Your task to perform on an android device: uninstall "WhatsApp Messenger" Image 0: 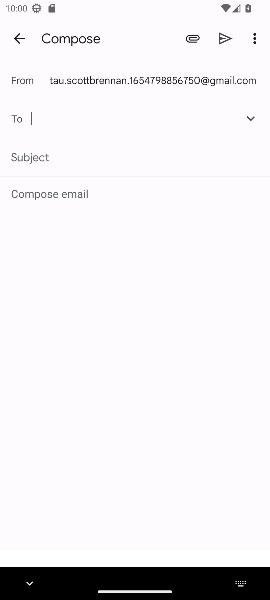
Step 0: press home button
Your task to perform on an android device: uninstall "WhatsApp Messenger" Image 1: 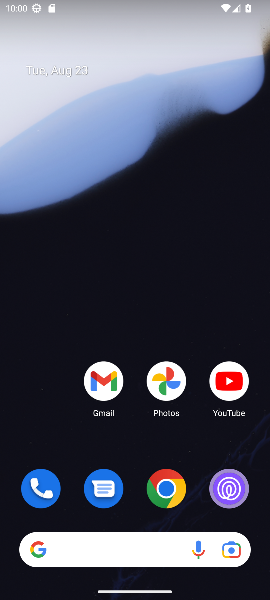
Step 1: drag from (128, 426) to (147, 103)
Your task to perform on an android device: uninstall "WhatsApp Messenger" Image 2: 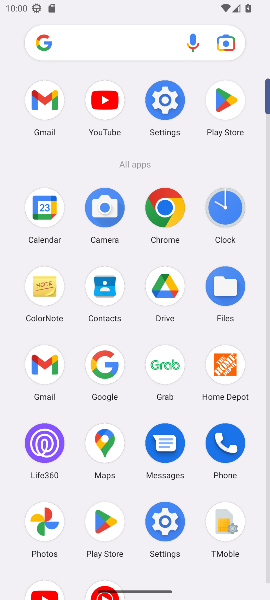
Step 2: click (220, 107)
Your task to perform on an android device: uninstall "WhatsApp Messenger" Image 3: 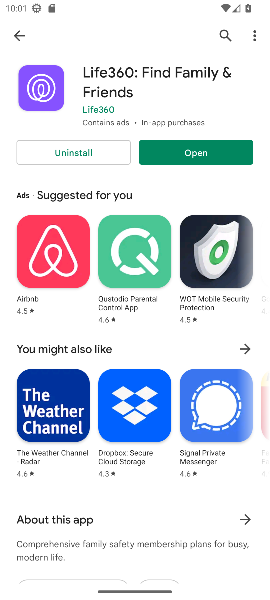
Step 3: click (11, 37)
Your task to perform on an android device: uninstall "WhatsApp Messenger" Image 4: 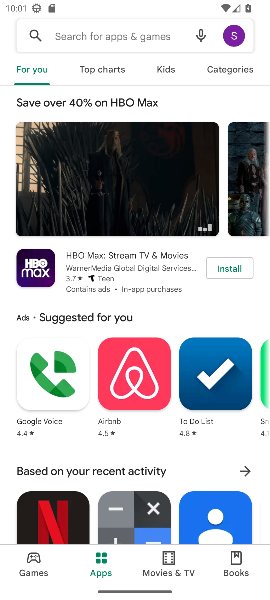
Step 4: click (115, 37)
Your task to perform on an android device: uninstall "WhatsApp Messenger" Image 5: 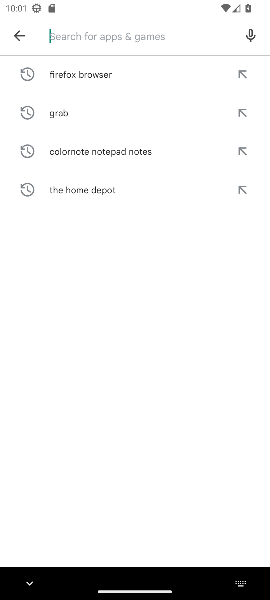
Step 5: type "WhatsApp Messenger"
Your task to perform on an android device: uninstall "WhatsApp Messenger" Image 6: 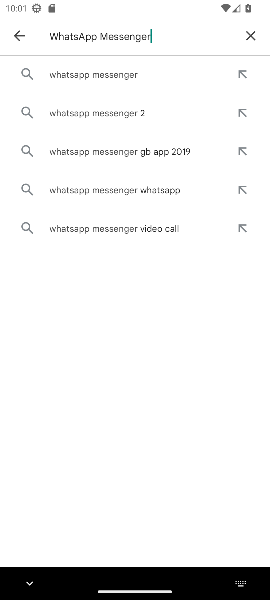
Step 6: click (107, 71)
Your task to perform on an android device: uninstall "WhatsApp Messenger" Image 7: 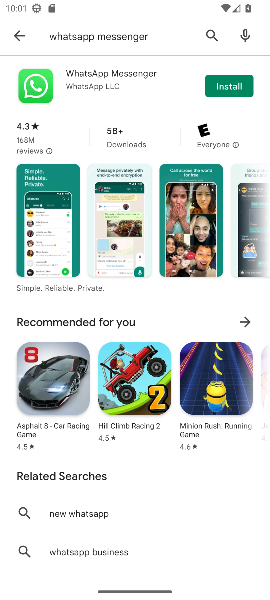
Step 7: task complete